Your task to perform on an android device: Open the calendar app, open the side menu, and click the "Day" option Image 0: 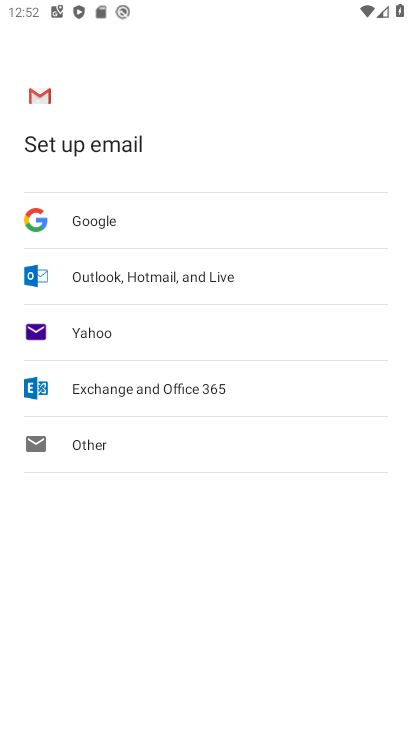
Step 0: press home button
Your task to perform on an android device: Open the calendar app, open the side menu, and click the "Day" option Image 1: 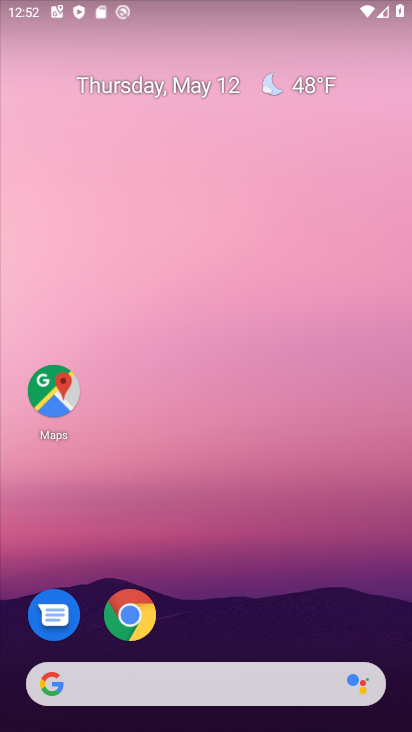
Step 1: drag from (298, 602) to (338, 0)
Your task to perform on an android device: Open the calendar app, open the side menu, and click the "Day" option Image 2: 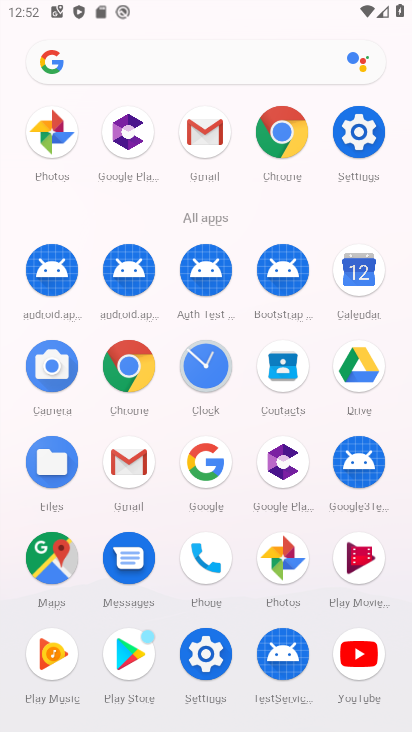
Step 2: click (349, 282)
Your task to perform on an android device: Open the calendar app, open the side menu, and click the "Day" option Image 3: 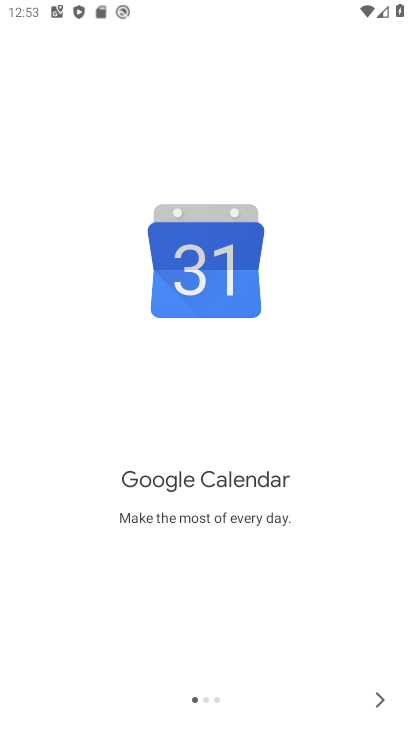
Step 3: click (376, 694)
Your task to perform on an android device: Open the calendar app, open the side menu, and click the "Day" option Image 4: 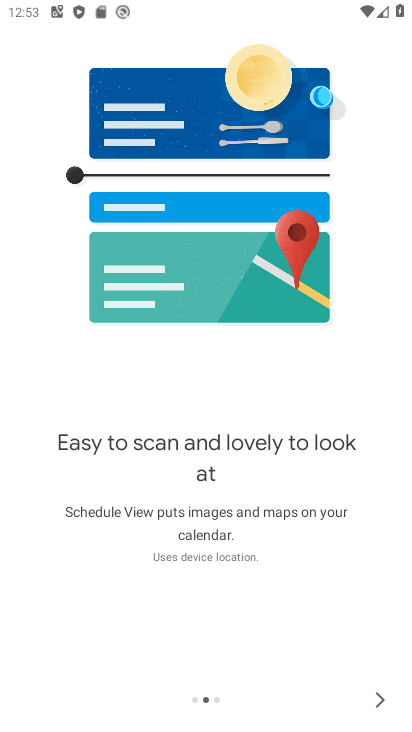
Step 4: click (376, 694)
Your task to perform on an android device: Open the calendar app, open the side menu, and click the "Day" option Image 5: 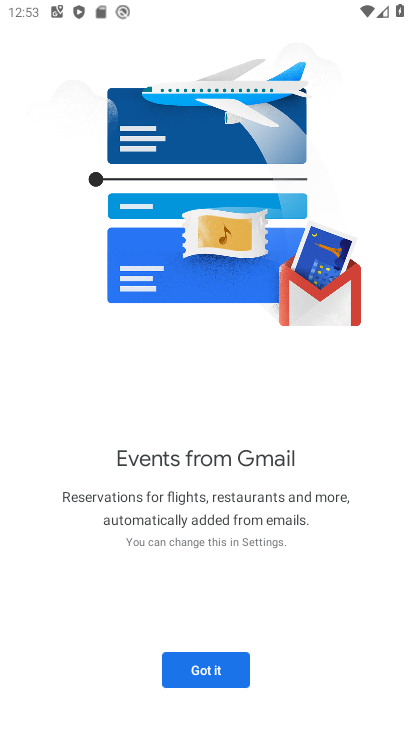
Step 5: click (224, 676)
Your task to perform on an android device: Open the calendar app, open the side menu, and click the "Day" option Image 6: 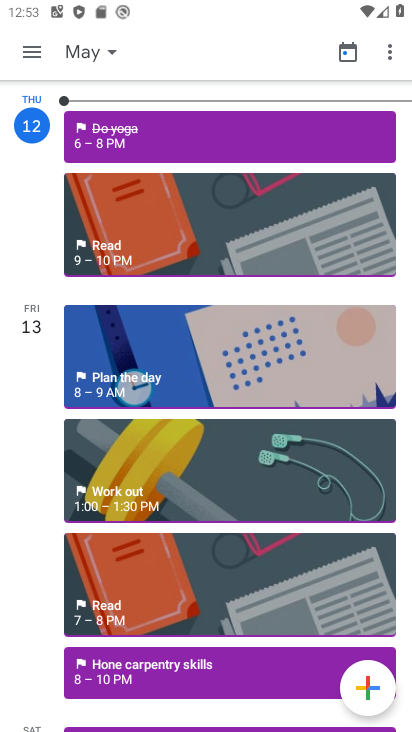
Step 6: click (25, 50)
Your task to perform on an android device: Open the calendar app, open the side menu, and click the "Day" option Image 7: 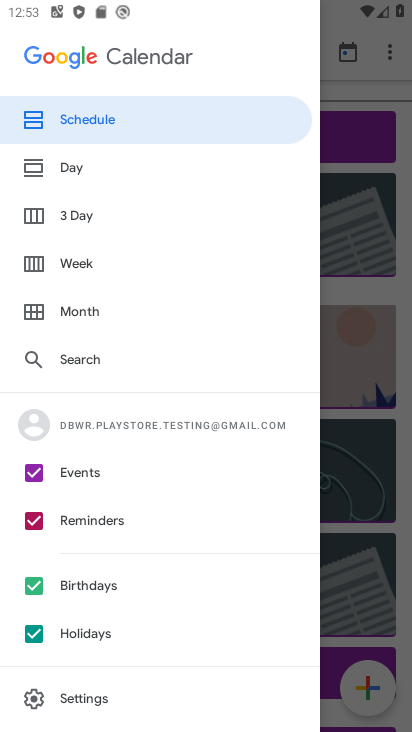
Step 7: click (70, 169)
Your task to perform on an android device: Open the calendar app, open the side menu, and click the "Day" option Image 8: 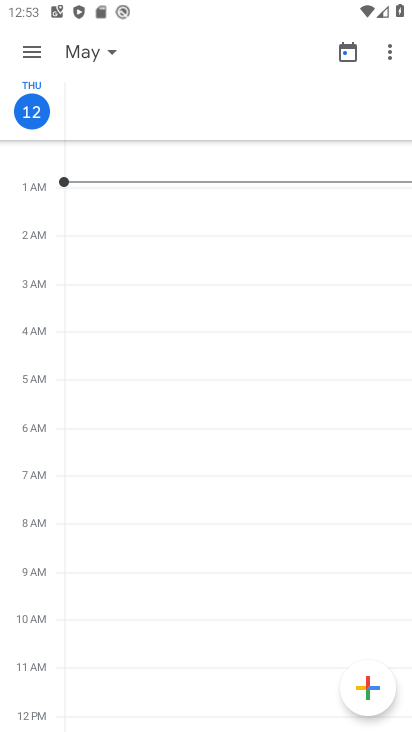
Step 8: task complete